Your task to perform on an android device: Open Youtube and go to "Your channel" Image 0: 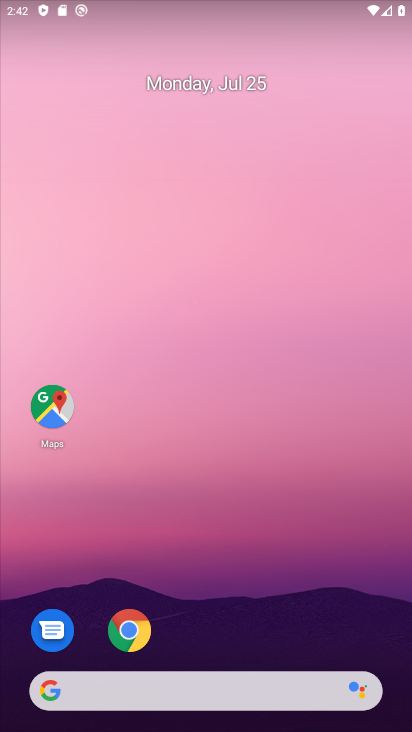
Step 0: drag from (247, 595) to (304, 132)
Your task to perform on an android device: Open Youtube and go to "Your channel" Image 1: 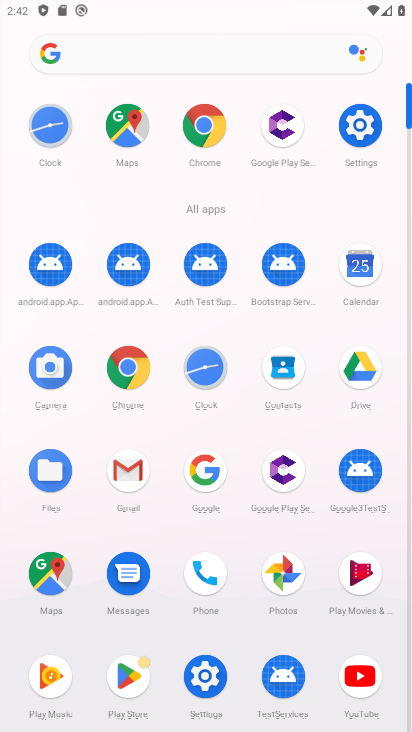
Step 1: click (366, 677)
Your task to perform on an android device: Open Youtube and go to "Your channel" Image 2: 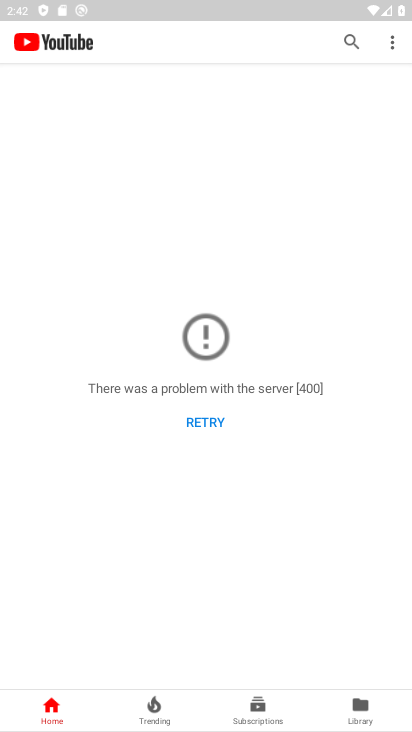
Step 2: task complete